Your task to perform on an android device: Check the weather Image 0: 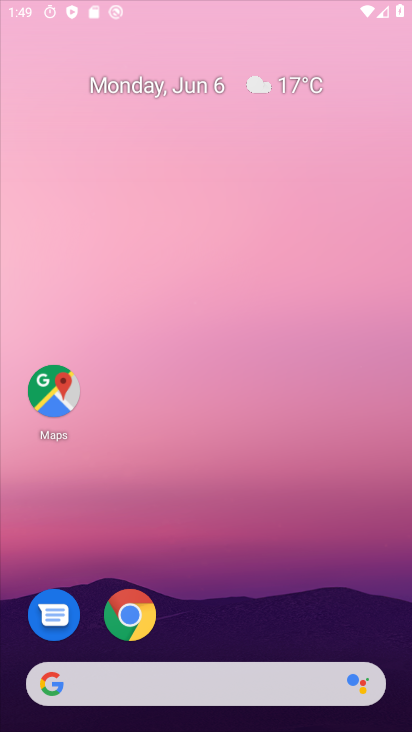
Step 0: click (331, 44)
Your task to perform on an android device: Check the weather Image 1: 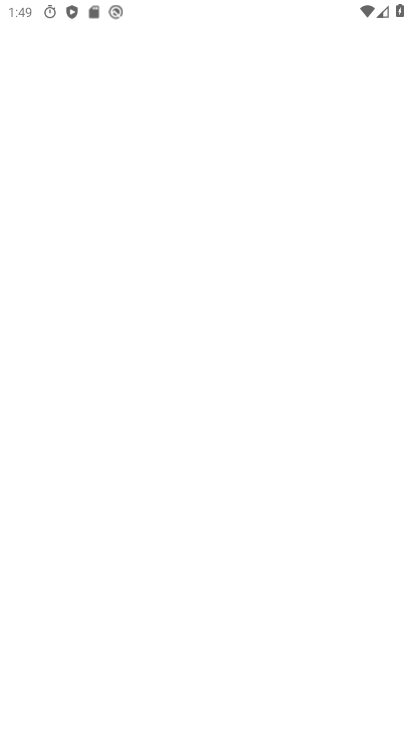
Step 1: drag from (186, 579) to (295, 77)
Your task to perform on an android device: Check the weather Image 2: 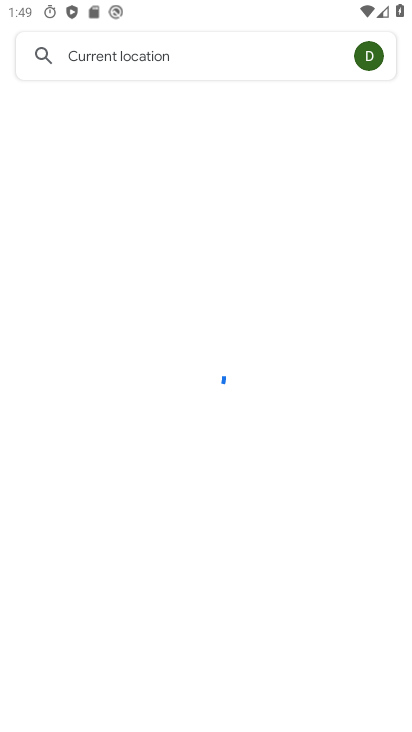
Step 2: press home button
Your task to perform on an android device: Check the weather Image 3: 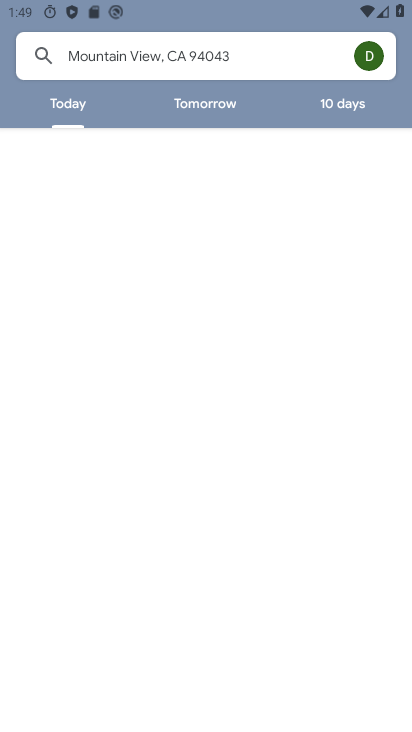
Step 3: drag from (231, 298) to (272, 0)
Your task to perform on an android device: Check the weather Image 4: 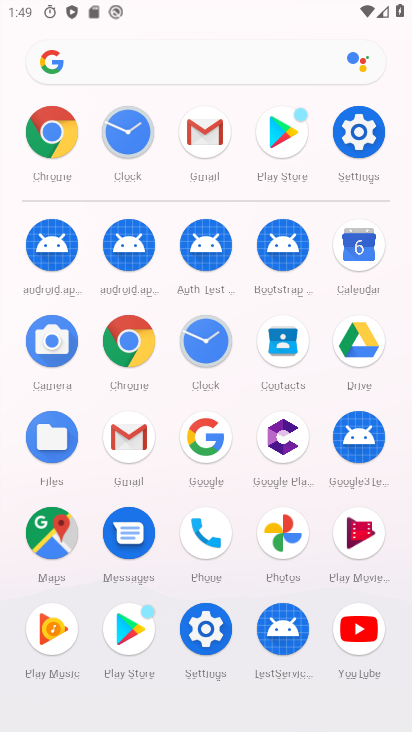
Step 4: click (181, 55)
Your task to perform on an android device: Check the weather Image 5: 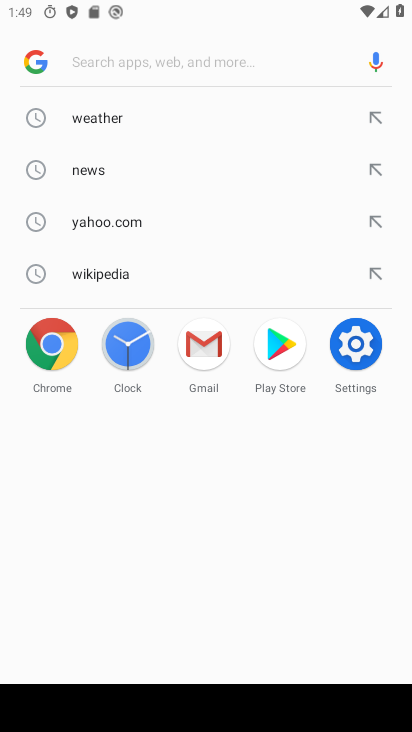
Step 5: click (104, 126)
Your task to perform on an android device: Check the weather Image 6: 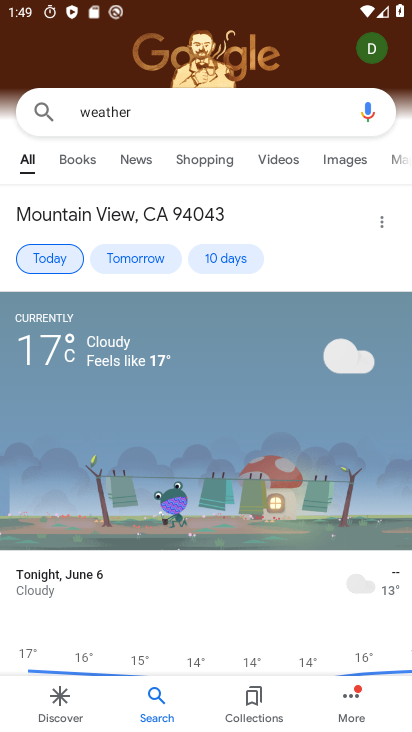
Step 6: drag from (253, 469) to (291, 235)
Your task to perform on an android device: Check the weather Image 7: 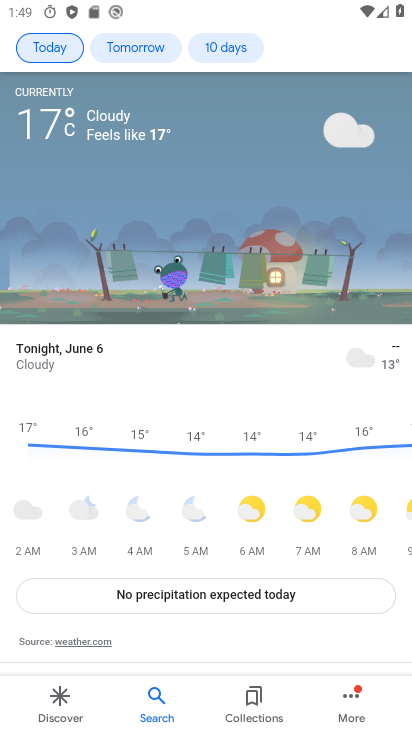
Step 7: drag from (284, 179) to (291, 686)
Your task to perform on an android device: Check the weather Image 8: 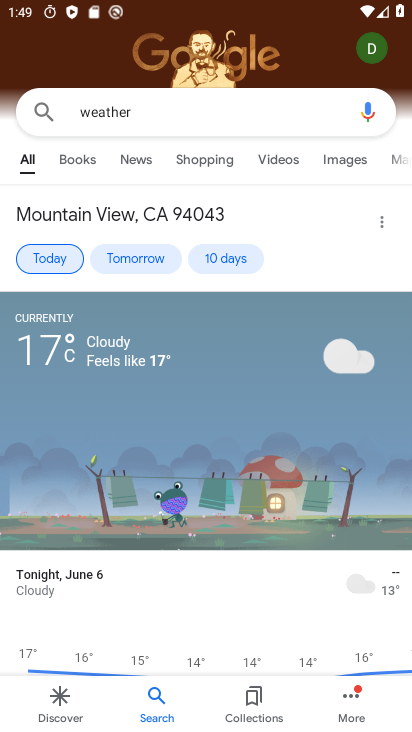
Step 8: click (403, 157)
Your task to perform on an android device: Check the weather Image 9: 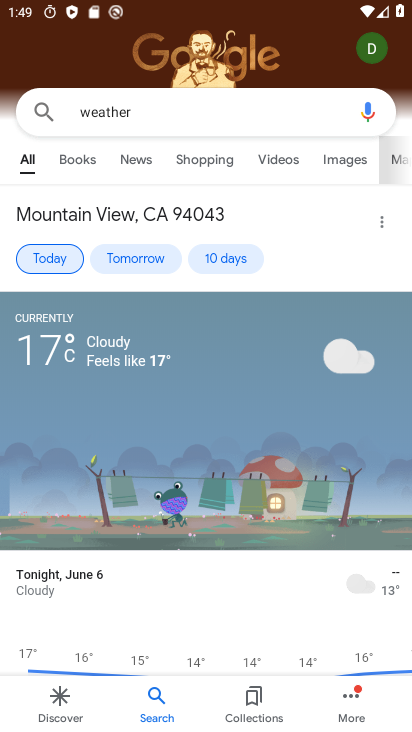
Step 9: task complete